Your task to perform on an android device: Go to accessibility settings Image 0: 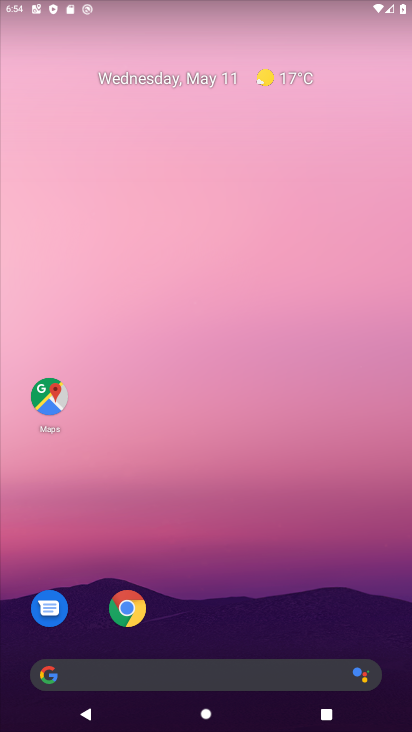
Step 0: drag from (209, 633) to (213, 41)
Your task to perform on an android device: Go to accessibility settings Image 1: 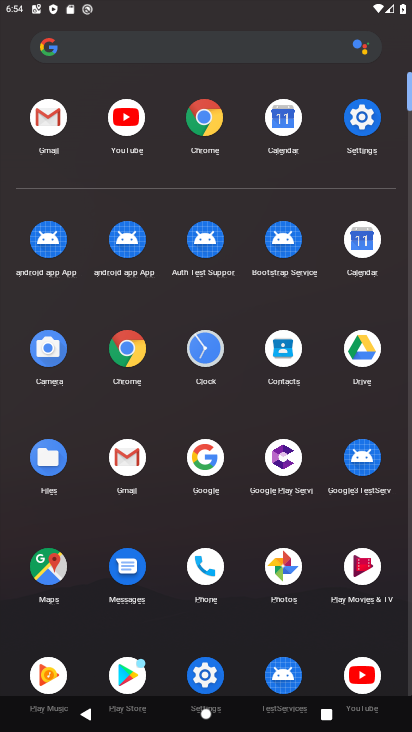
Step 1: click (369, 143)
Your task to perform on an android device: Go to accessibility settings Image 2: 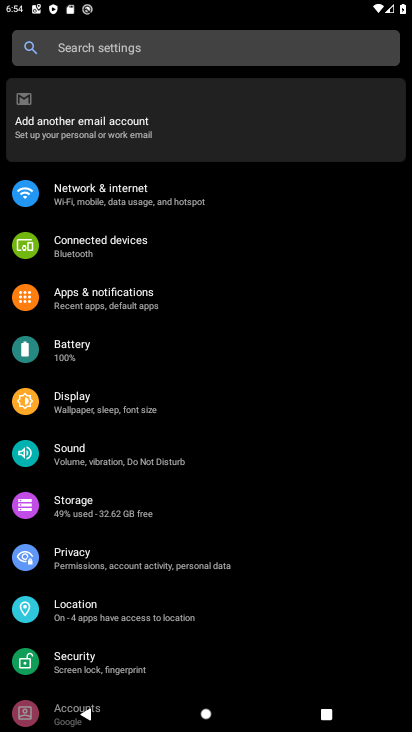
Step 2: drag from (149, 730) to (186, 334)
Your task to perform on an android device: Go to accessibility settings Image 3: 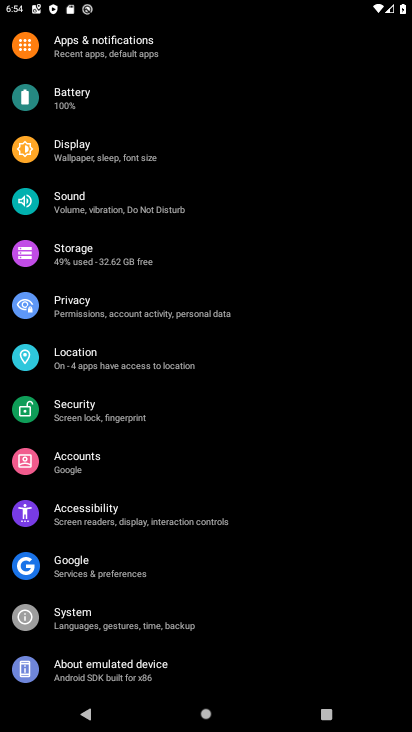
Step 3: click (153, 527)
Your task to perform on an android device: Go to accessibility settings Image 4: 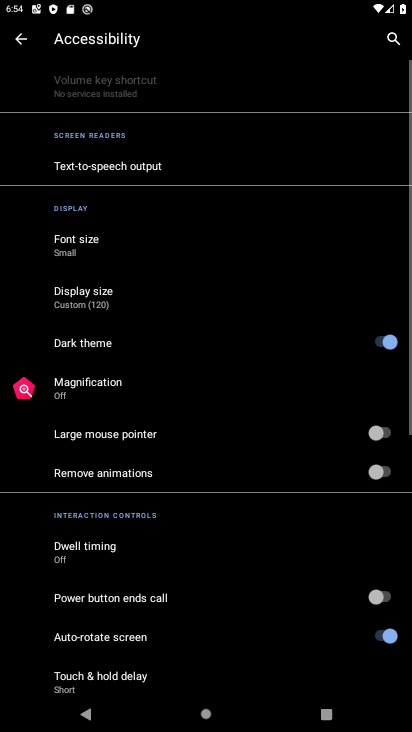
Step 4: task complete